Your task to perform on an android device: Search for seafood restaurants on Google Maps Image 0: 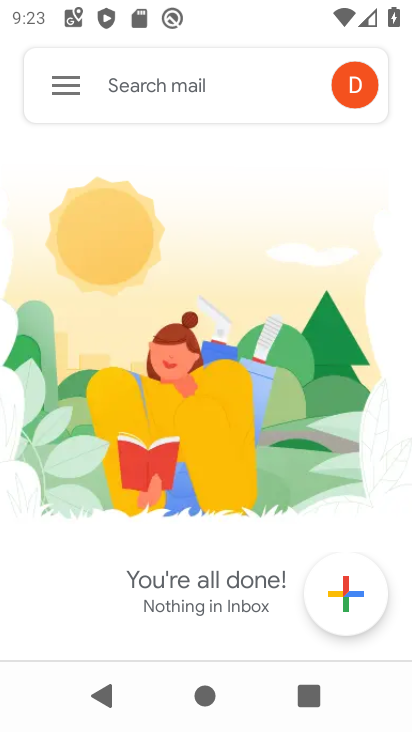
Step 0: press home button
Your task to perform on an android device: Search for seafood restaurants on Google Maps Image 1: 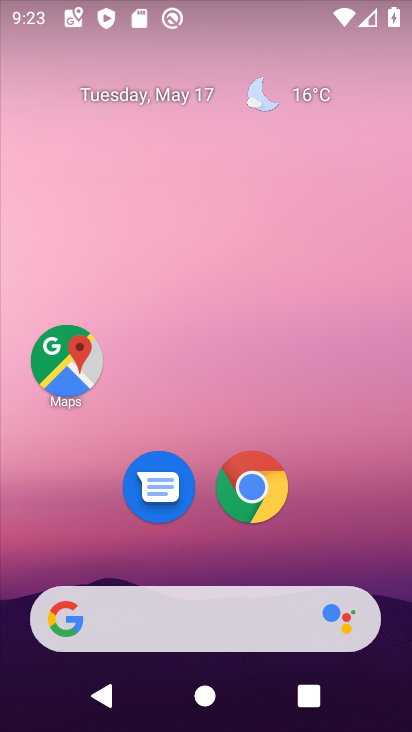
Step 1: click (54, 345)
Your task to perform on an android device: Search for seafood restaurants on Google Maps Image 2: 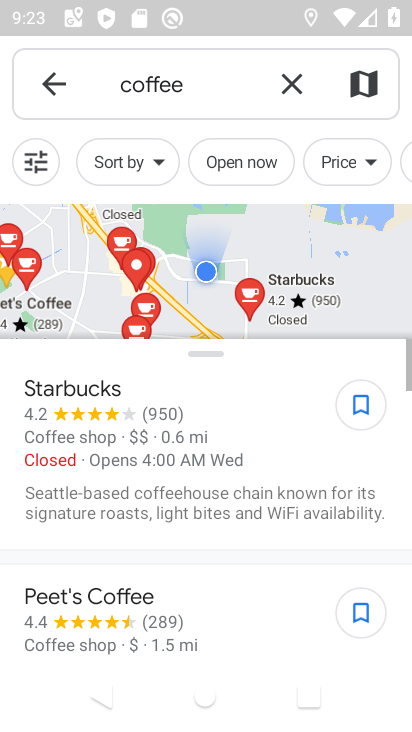
Step 2: click (286, 77)
Your task to perform on an android device: Search for seafood restaurants on Google Maps Image 3: 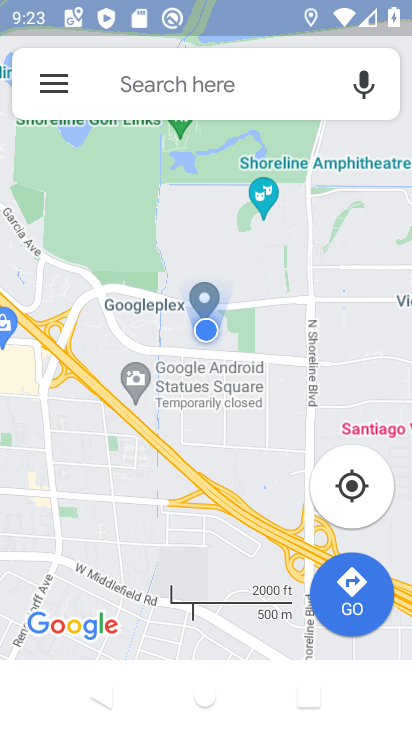
Step 3: click (136, 81)
Your task to perform on an android device: Search for seafood restaurants on Google Maps Image 4: 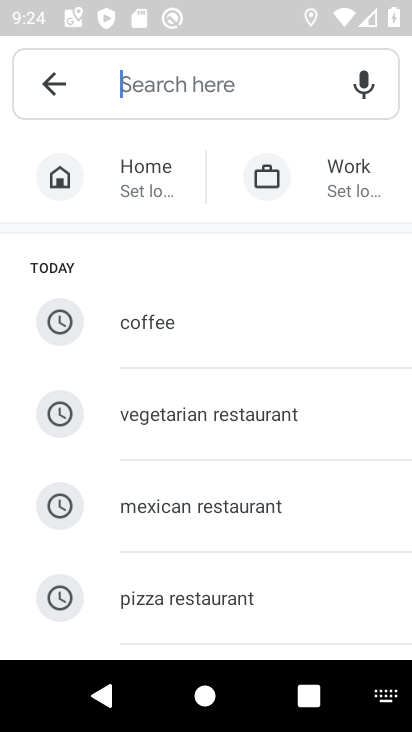
Step 4: type "seafood restaurants"
Your task to perform on an android device: Search for seafood restaurants on Google Maps Image 5: 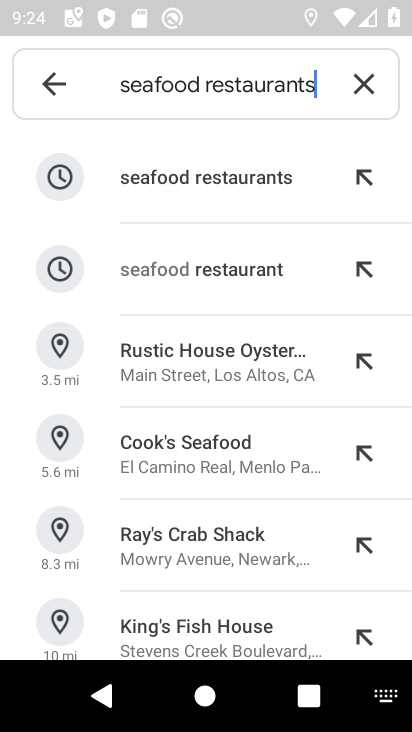
Step 5: click (243, 173)
Your task to perform on an android device: Search for seafood restaurants on Google Maps Image 6: 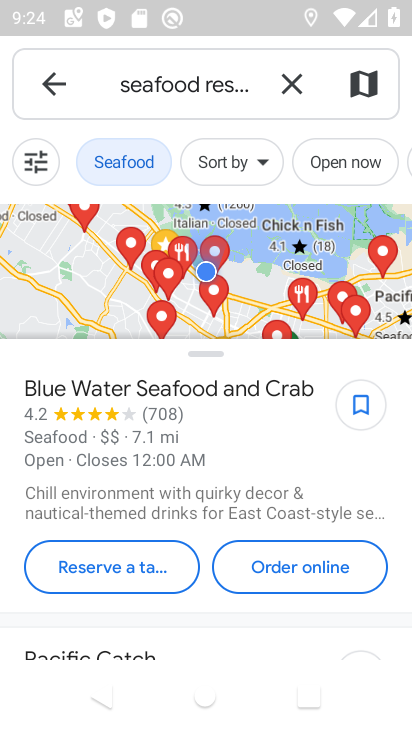
Step 6: task complete